Your task to perform on an android device: Is it going to rain this weekend? Image 0: 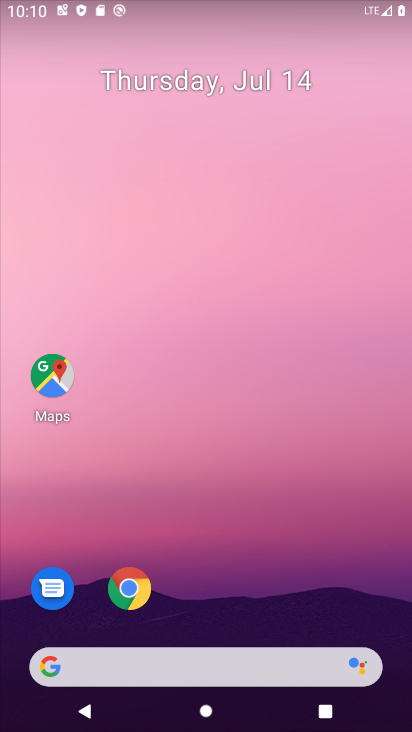
Step 0: drag from (340, 616) to (213, 75)
Your task to perform on an android device: Is it going to rain this weekend? Image 1: 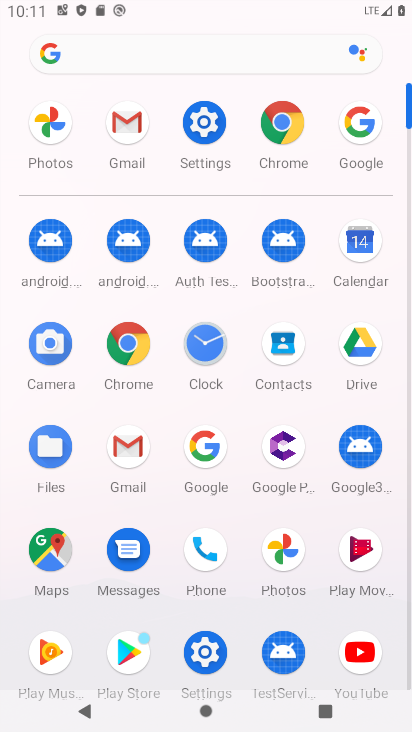
Step 1: click (197, 467)
Your task to perform on an android device: Is it going to rain this weekend? Image 2: 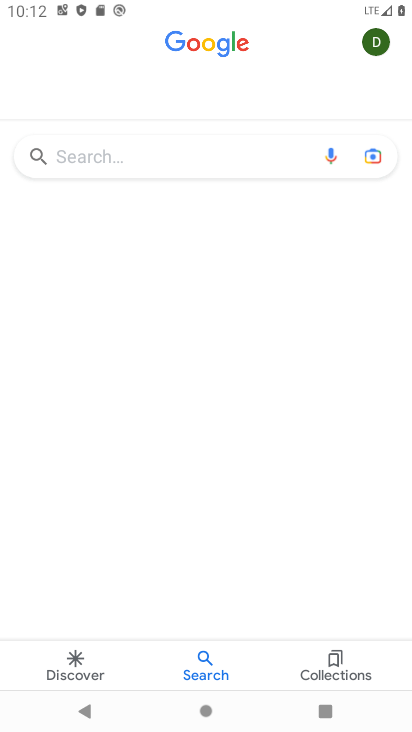
Step 2: click (122, 151)
Your task to perform on an android device: Is it going to rain this weekend? Image 3: 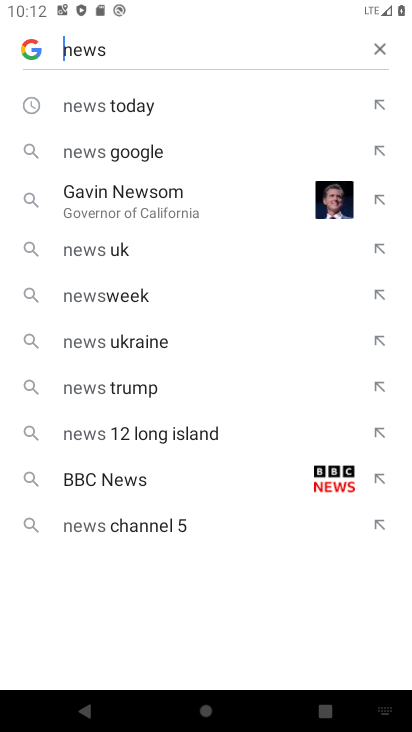
Step 3: click (377, 54)
Your task to perform on an android device: Is it going to rain this weekend? Image 4: 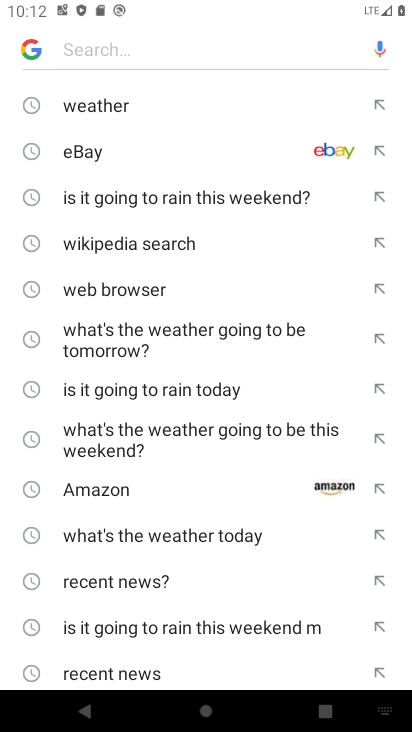
Step 4: click (174, 631)
Your task to perform on an android device: Is it going to rain this weekend? Image 5: 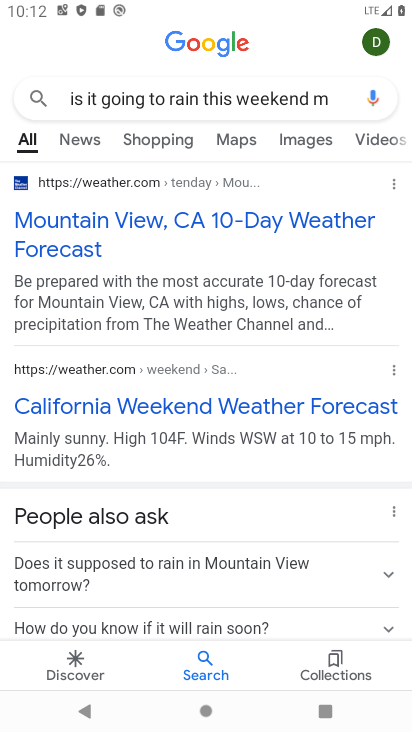
Step 5: task complete